Your task to perform on an android device: open app "LinkedIn" (install if not already installed), go to login, and select forgot password Image 0: 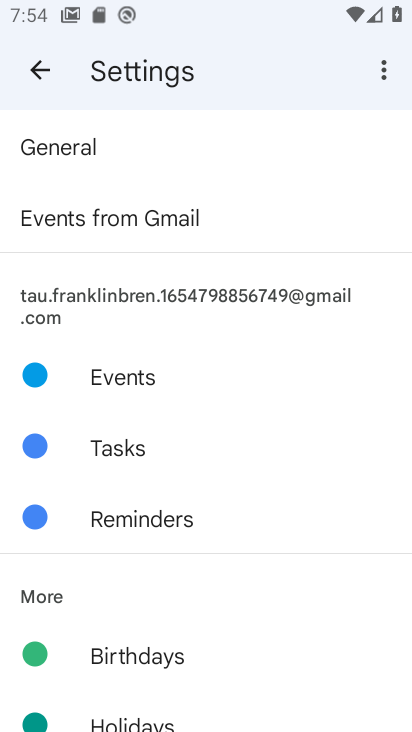
Step 0: press home button
Your task to perform on an android device: open app "LinkedIn" (install if not already installed), go to login, and select forgot password Image 1: 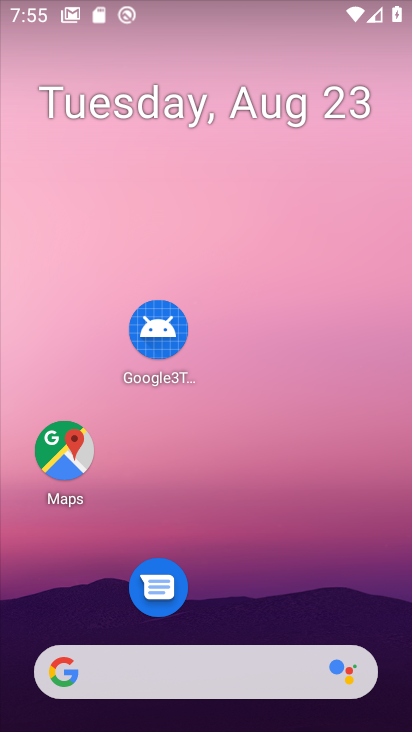
Step 1: drag from (252, 588) to (268, 91)
Your task to perform on an android device: open app "LinkedIn" (install if not already installed), go to login, and select forgot password Image 2: 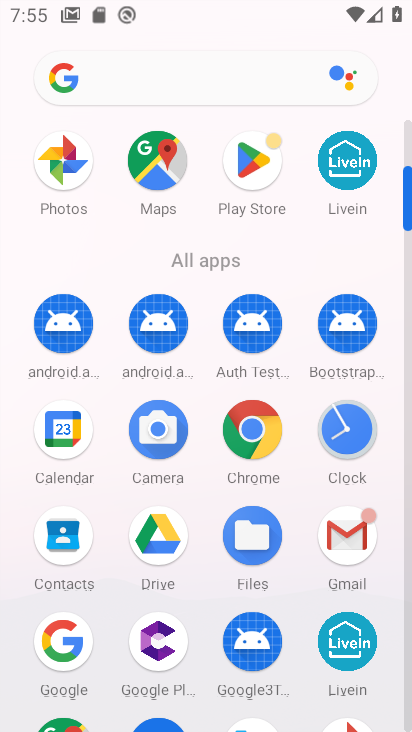
Step 2: click (251, 149)
Your task to perform on an android device: open app "LinkedIn" (install if not already installed), go to login, and select forgot password Image 3: 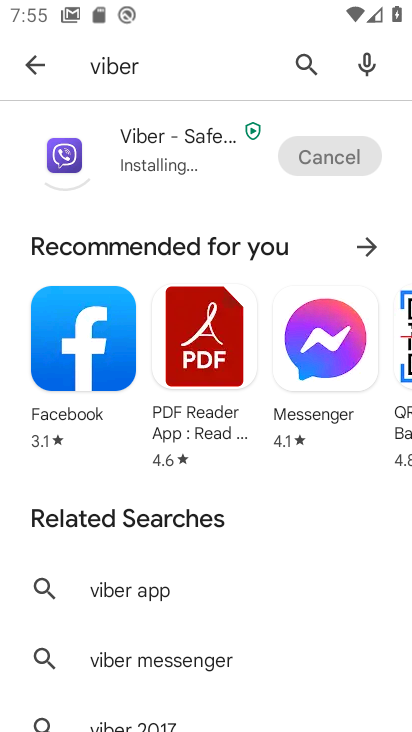
Step 3: click (314, 77)
Your task to perform on an android device: open app "LinkedIn" (install if not already installed), go to login, and select forgot password Image 4: 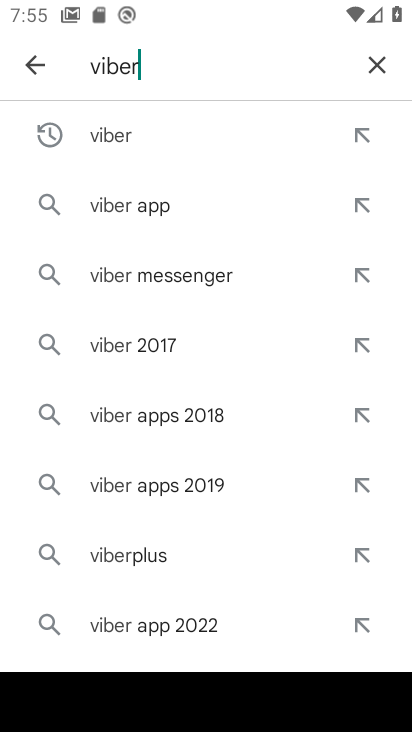
Step 4: click (374, 72)
Your task to perform on an android device: open app "LinkedIn" (install if not already installed), go to login, and select forgot password Image 5: 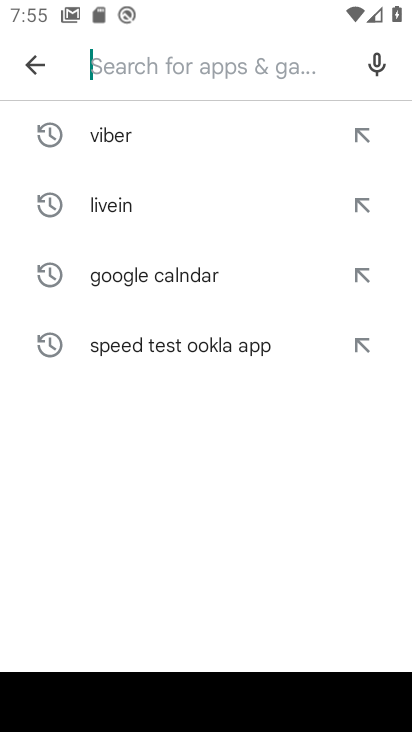
Step 5: type "linkedin"
Your task to perform on an android device: open app "LinkedIn" (install if not already installed), go to login, and select forgot password Image 6: 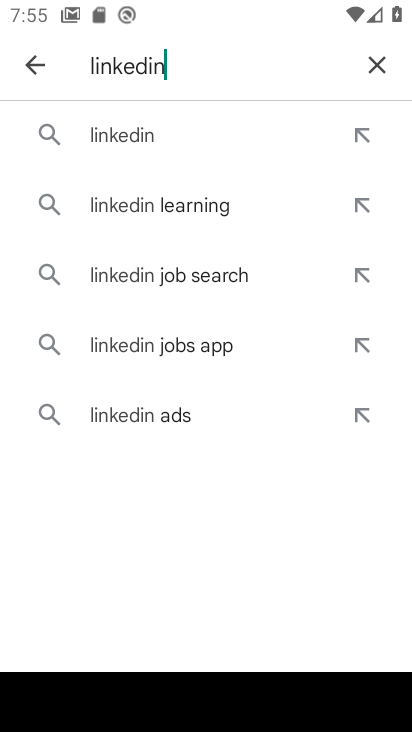
Step 6: click (145, 142)
Your task to perform on an android device: open app "LinkedIn" (install if not already installed), go to login, and select forgot password Image 7: 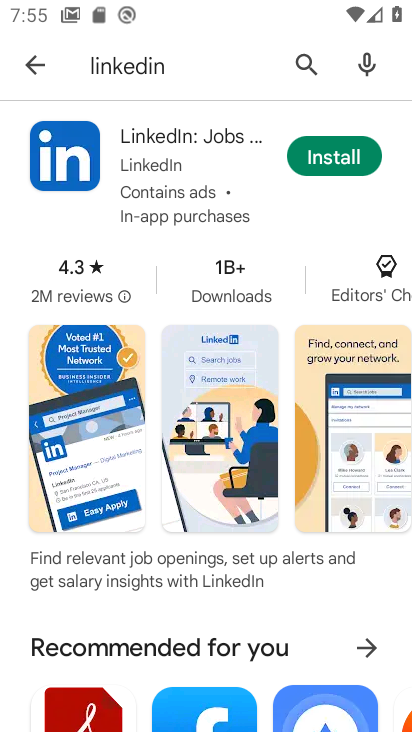
Step 7: click (313, 144)
Your task to perform on an android device: open app "LinkedIn" (install if not already installed), go to login, and select forgot password Image 8: 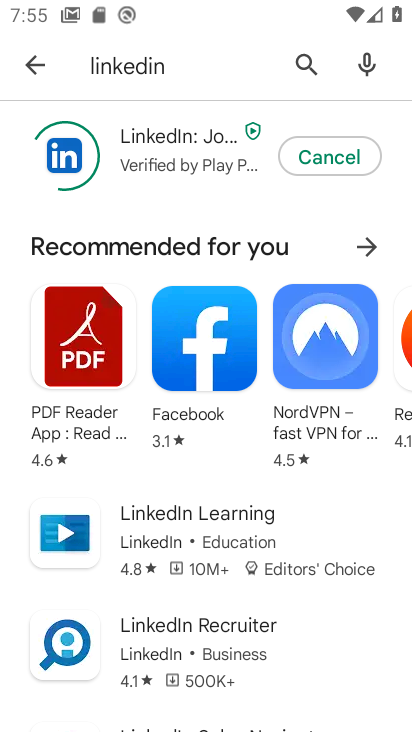
Step 8: task complete